Your task to perform on an android device: Go to display settings Image 0: 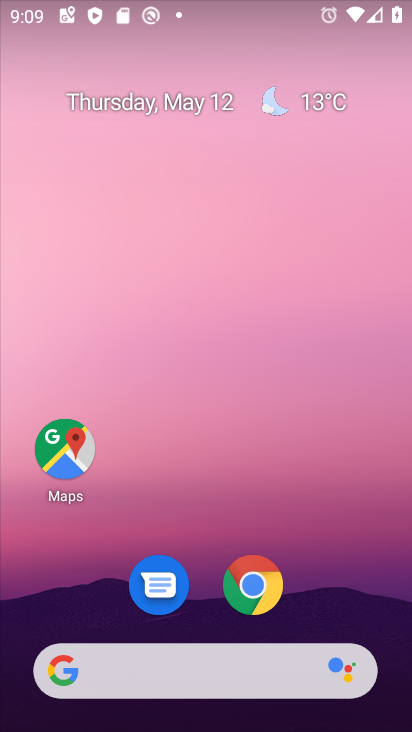
Step 0: drag from (249, 493) to (213, 30)
Your task to perform on an android device: Go to display settings Image 1: 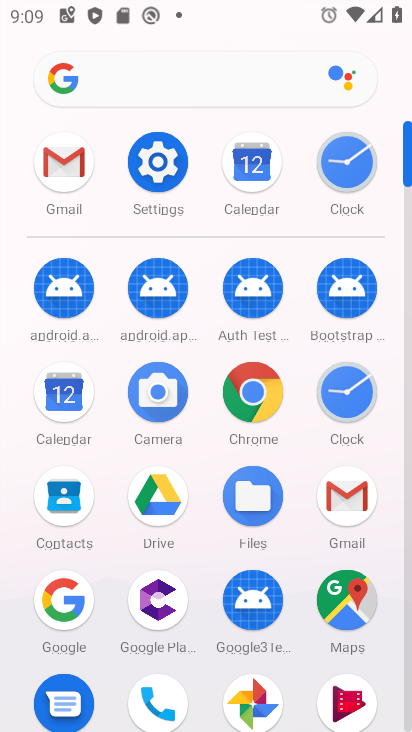
Step 1: click (171, 150)
Your task to perform on an android device: Go to display settings Image 2: 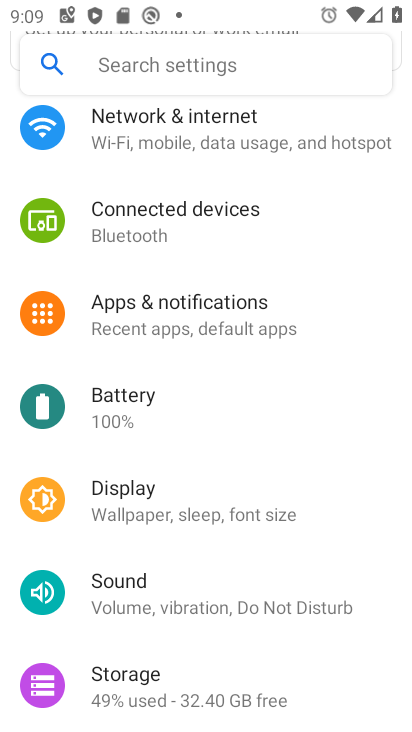
Step 2: click (167, 495)
Your task to perform on an android device: Go to display settings Image 3: 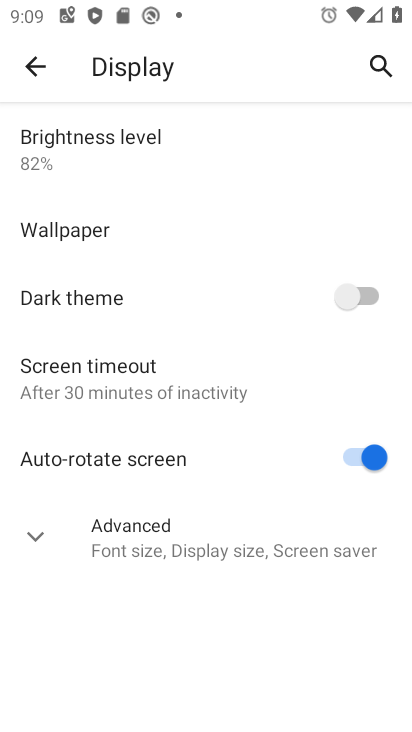
Step 3: task complete